Your task to perform on an android device: Open ESPN.com Image 0: 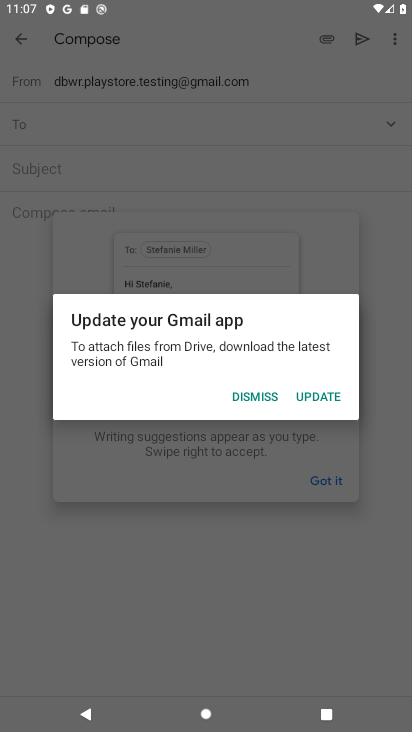
Step 0: press home button
Your task to perform on an android device: Open ESPN.com Image 1: 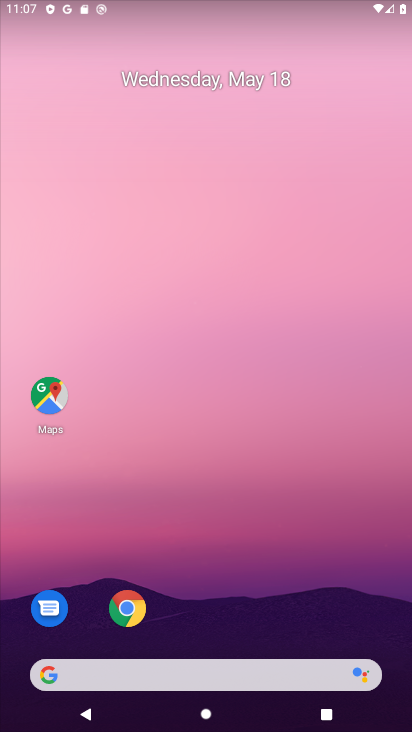
Step 1: click (146, 615)
Your task to perform on an android device: Open ESPN.com Image 2: 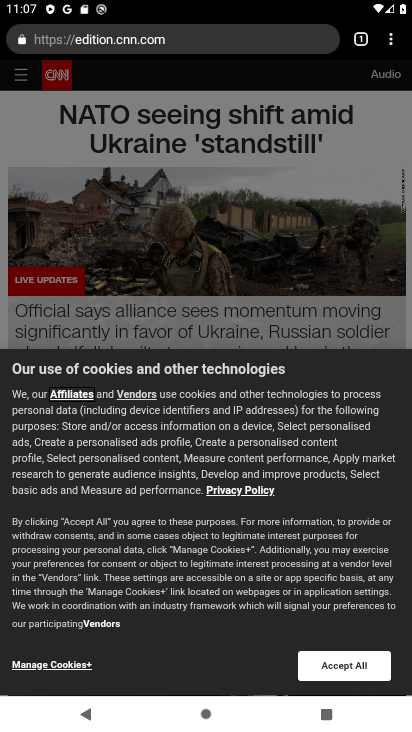
Step 2: click (362, 40)
Your task to perform on an android device: Open ESPN.com Image 3: 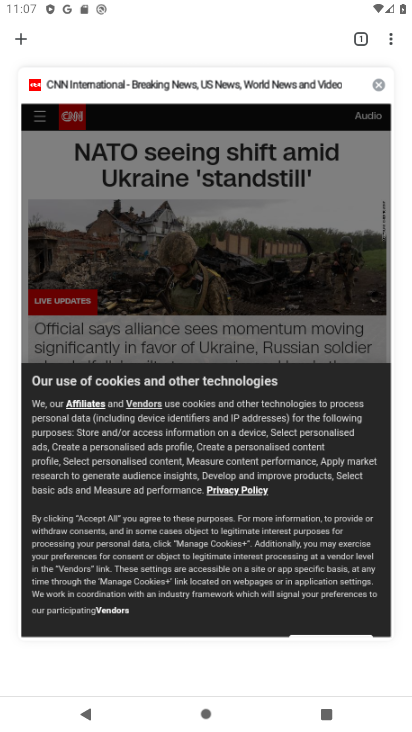
Step 3: click (21, 37)
Your task to perform on an android device: Open ESPN.com Image 4: 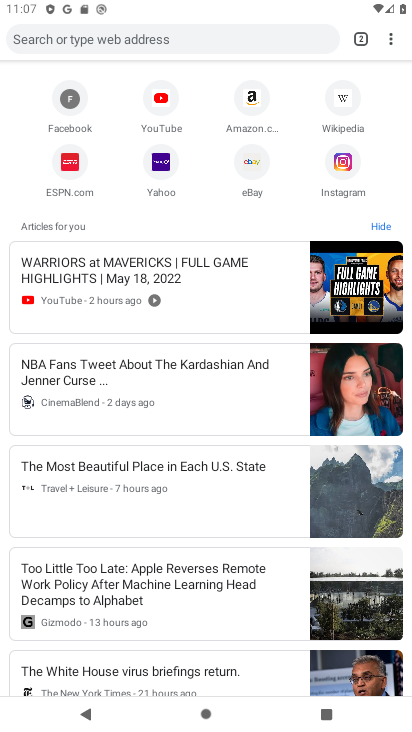
Step 4: click (73, 167)
Your task to perform on an android device: Open ESPN.com Image 5: 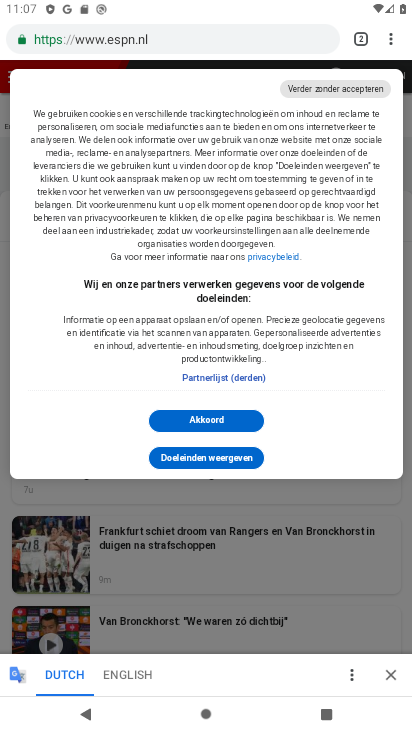
Step 5: task complete